Your task to perform on an android device: all mails in gmail Image 0: 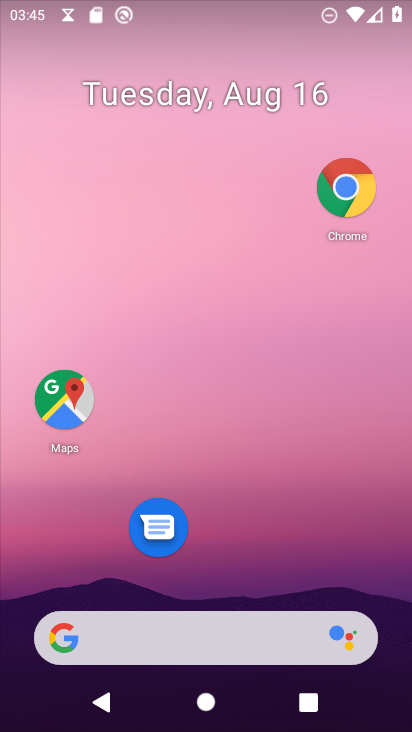
Step 0: press home button
Your task to perform on an android device: all mails in gmail Image 1: 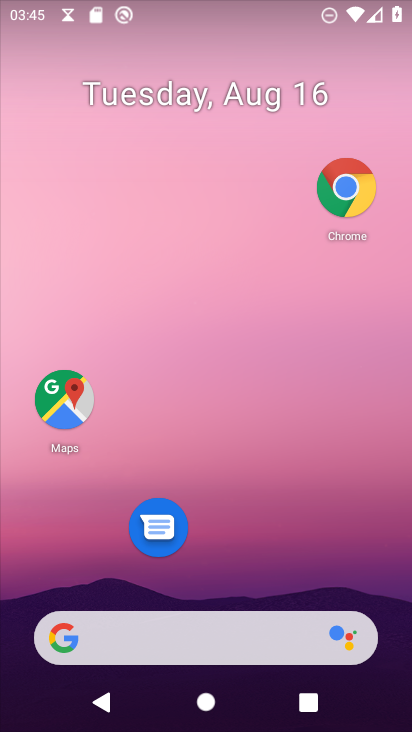
Step 1: drag from (239, 590) to (226, 33)
Your task to perform on an android device: all mails in gmail Image 2: 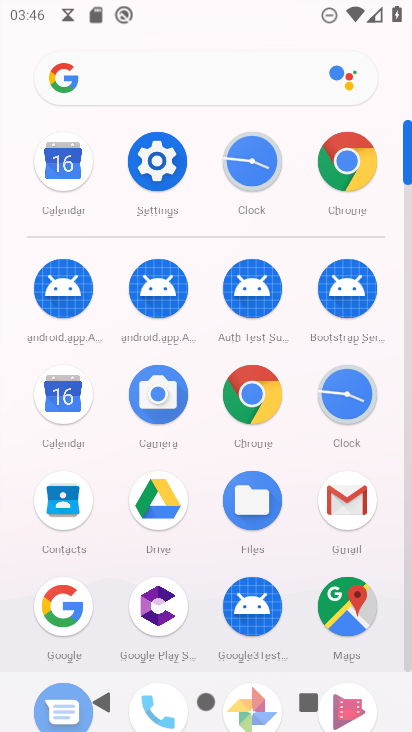
Step 2: click (343, 489)
Your task to perform on an android device: all mails in gmail Image 3: 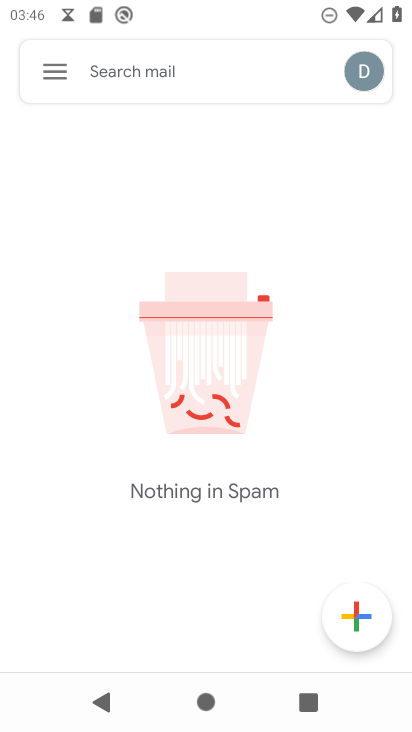
Step 3: click (45, 77)
Your task to perform on an android device: all mails in gmail Image 4: 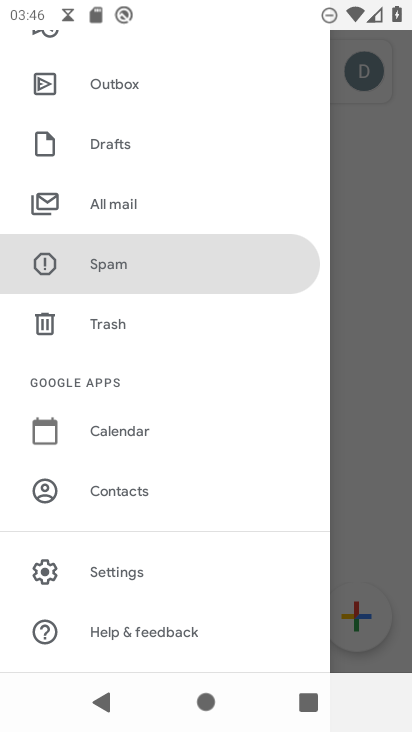
Step 4: click (119, 204)
Your task to perform on an android device: all mails in gmail Image 5: 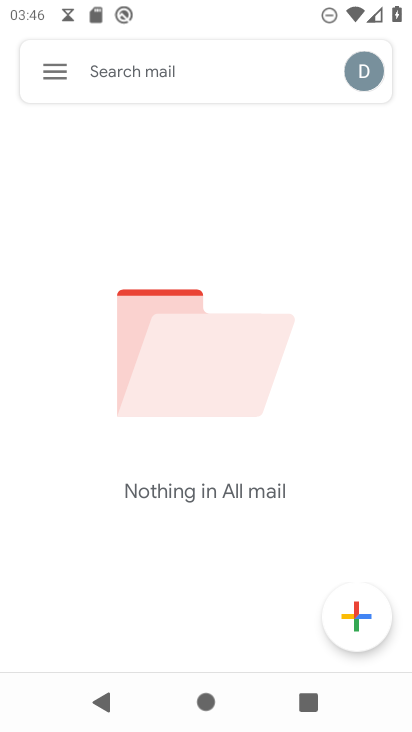
Step 5: task complete